Your task to perform on an android device: Show me popular games on the Play Store Image 0: 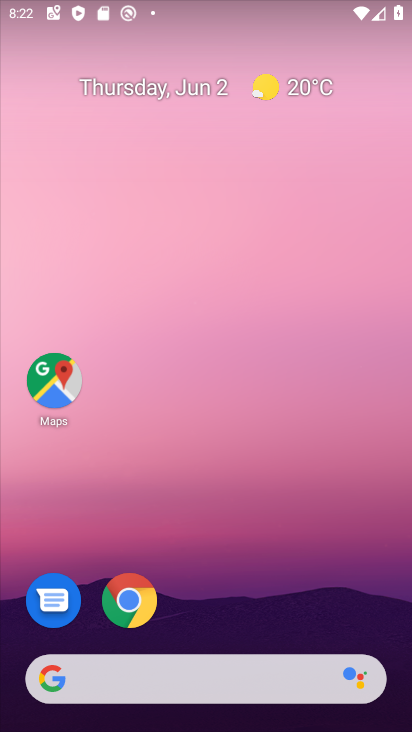
Step 0: drag from (381, 623) to (375, 223)
Your task to perform on an android device: Show me popular games on the Play Store Image 1: 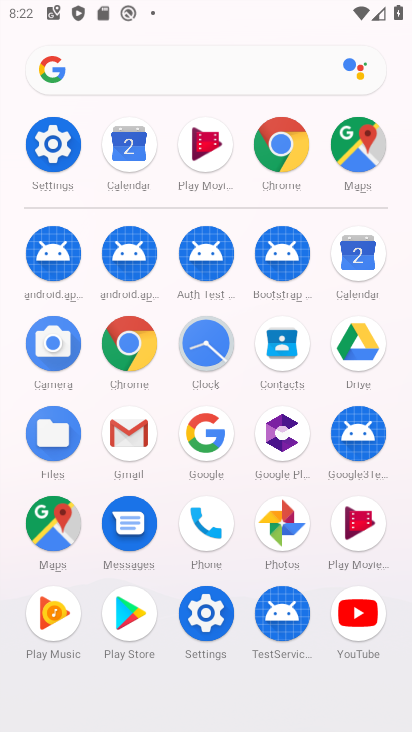
Step 1: click (124, 617)
Your task to perform on an android device: Show me popular games on the Play Store Image 2: 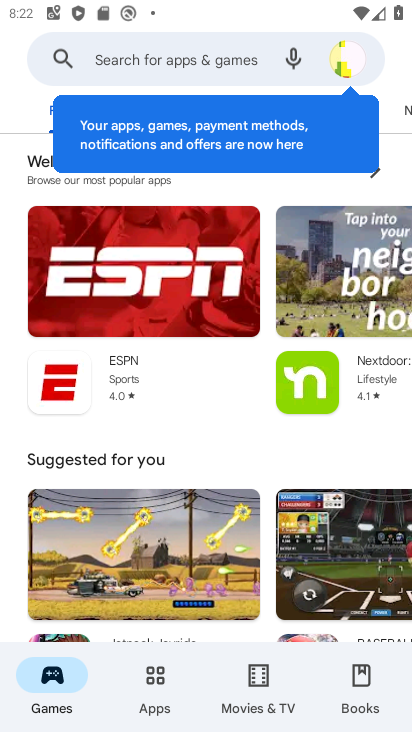
Step 2: task complete